Your task to perform on an android device: Open calendar and show me the second week of next month Image 0: 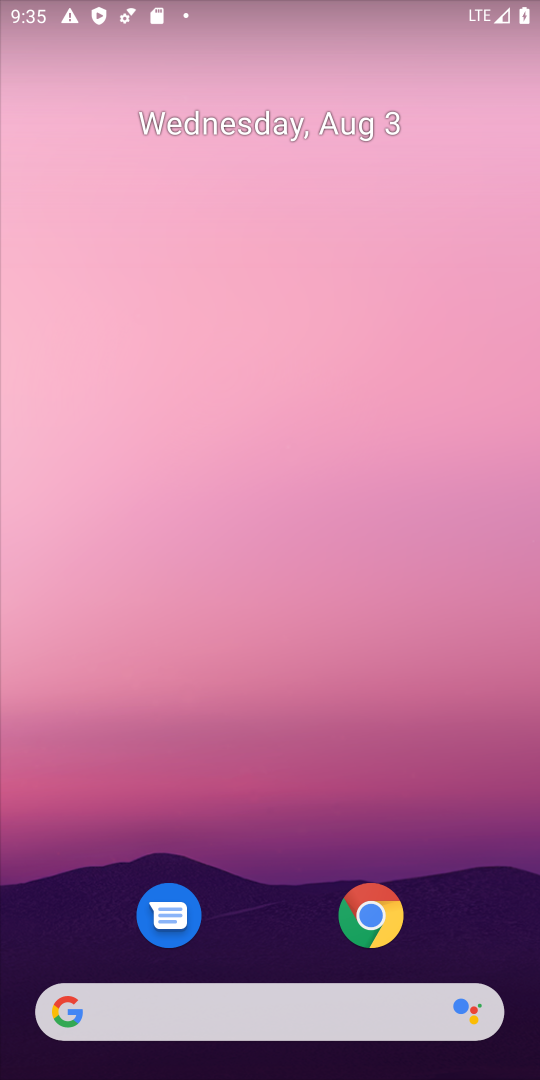
Step 0: drag from (304, 893) to (394, 346)
Your task to perform on an android device: Open calendar and show me the second week of next month Image 1: 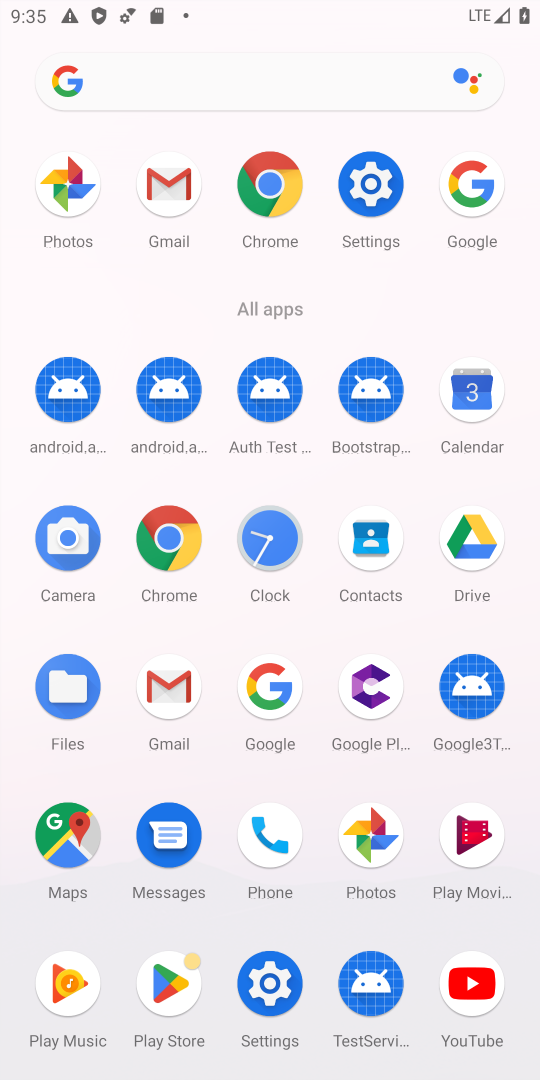
Step 1: click (482, 389)
Your task to perform on an android device: Open calendar and show me the second week of next month Image 2: 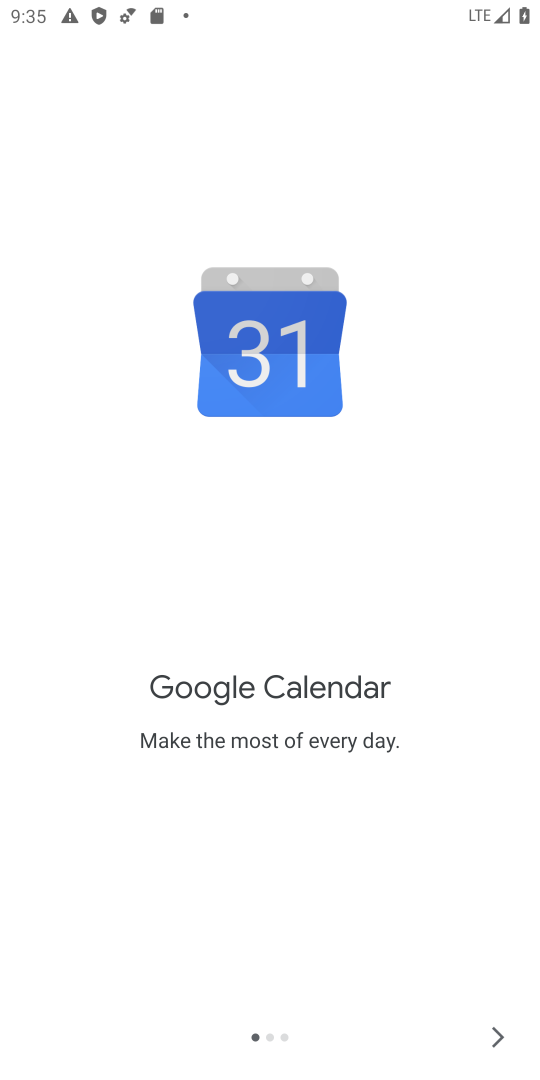
Step 2: click (481, 1034)
Your task to perform on an android device: Open calendar and show me the second week of next month Image 3: 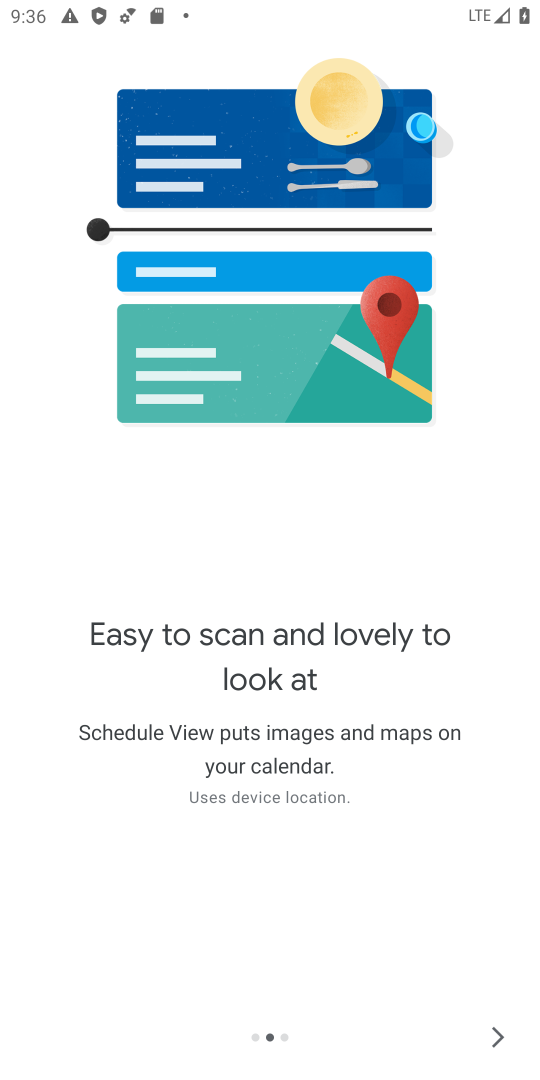
Step 3: click (489, 1038)
Your task to perform on an android device: Open calendar and show me the second week of next month Image 4: 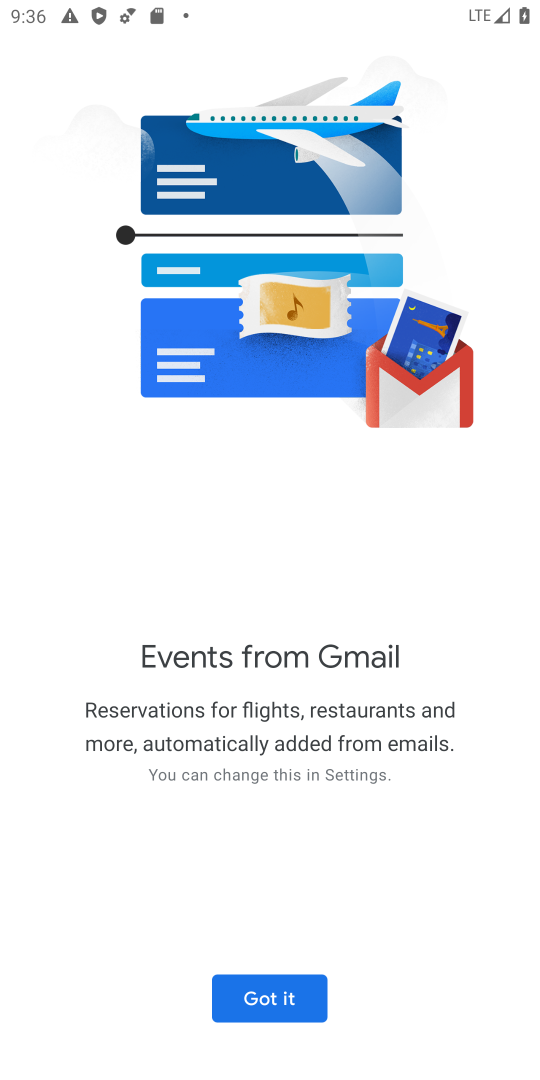
Step 4: click (490, 1038)
Your task to perform on an android device: Open calendar and show me the second week of next month Image 5: 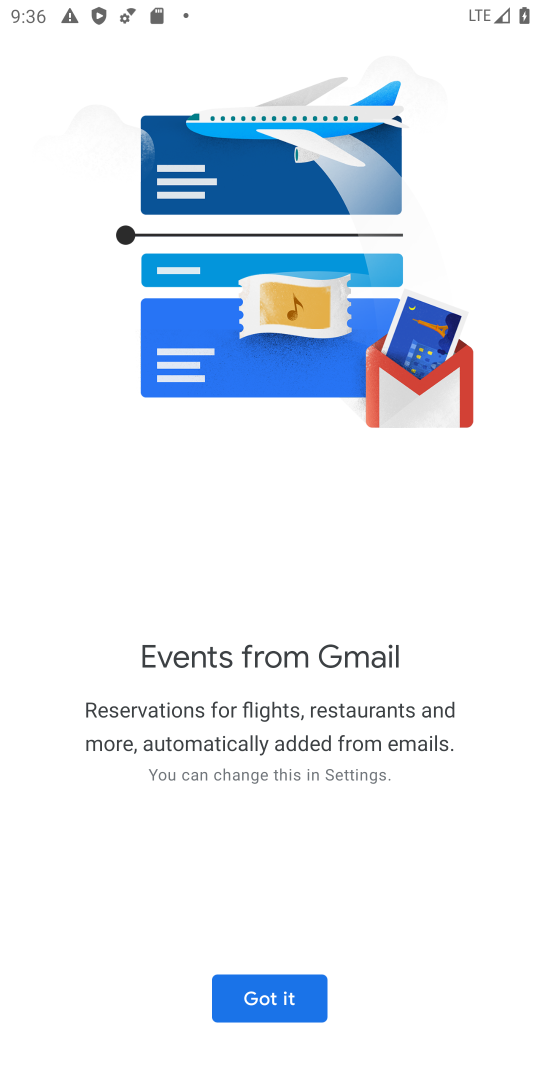
Step 5: click (268, 978)
Your task to perform on an android device: Open calendar and show me the second week of next month Image 6: 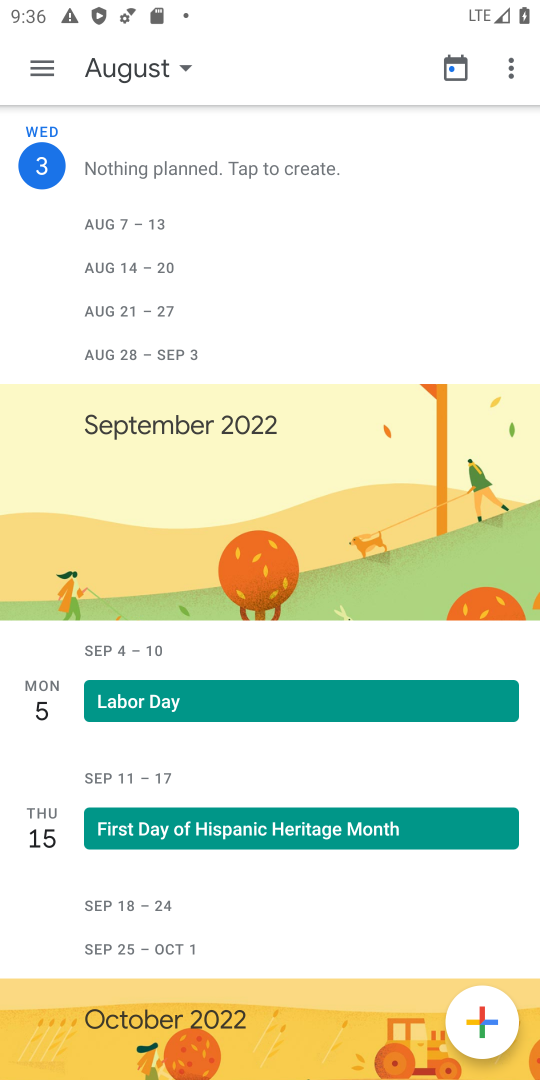
Step 6: click (135, 67)
Your task to perform on an android device: Open calendar and show me the second week of next month Image 7: 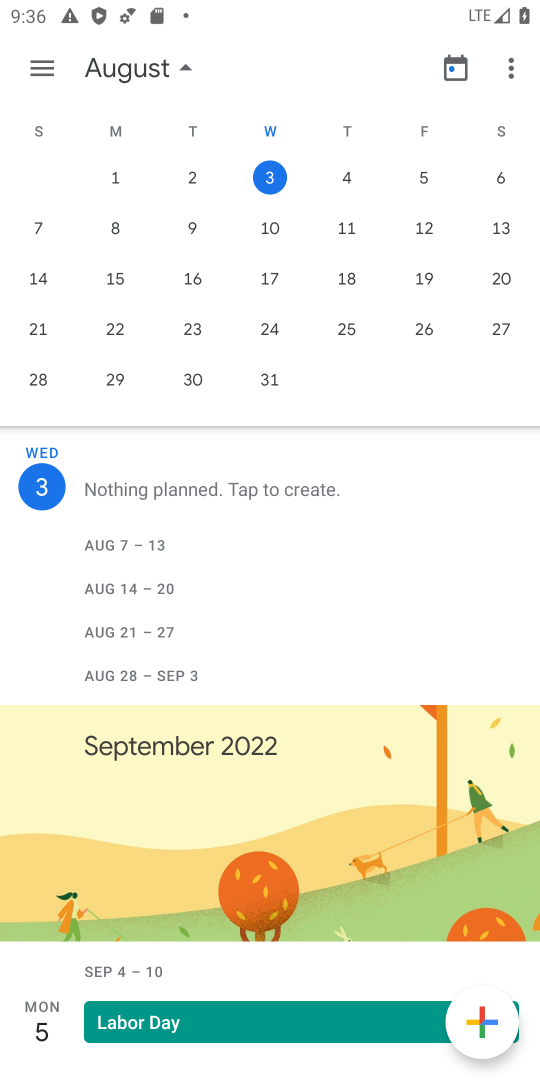
Step 7: drag from (450, 240) to (1, 326)
Your task to perform on an android device: Open calendar and show me the second week of next month Image 8: 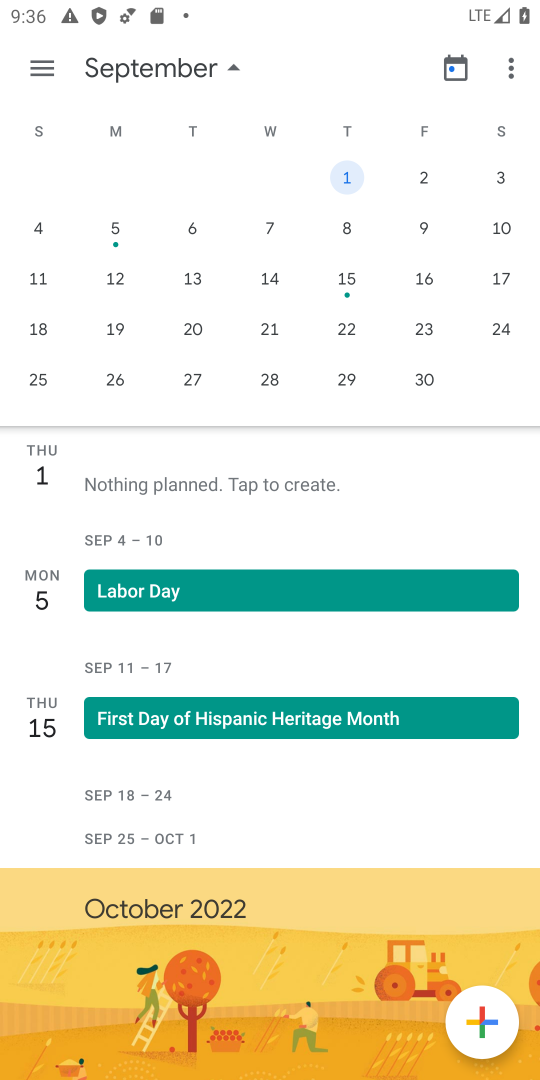
Step 8: click (39, 67)
Your task to perform on an android device: Open calendar and show me the second week of next month Image 9: 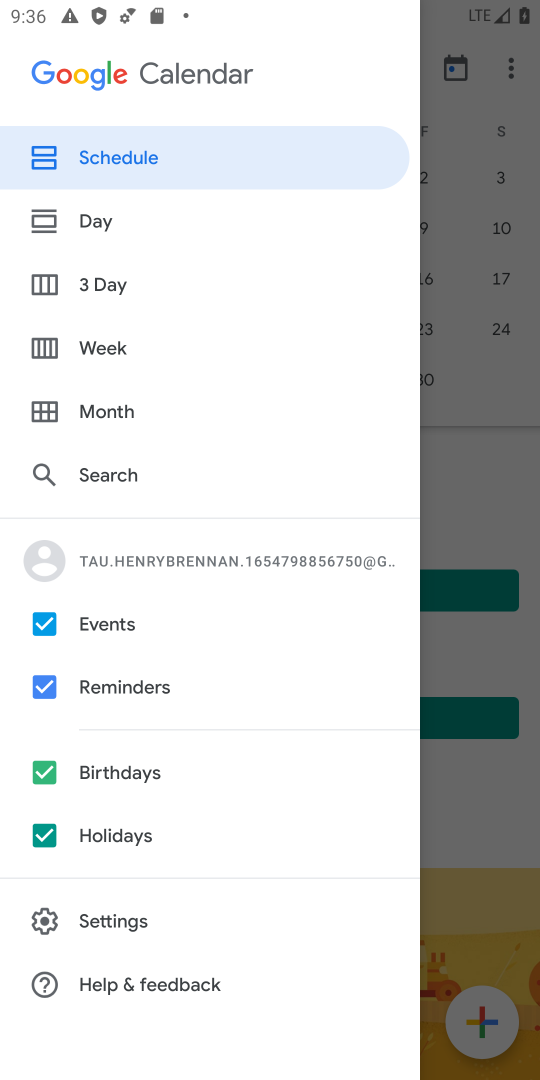
Step 9: click (124, 344)
Your task to perform on an android device: Open calendar and show me the second week of next month Image 10: 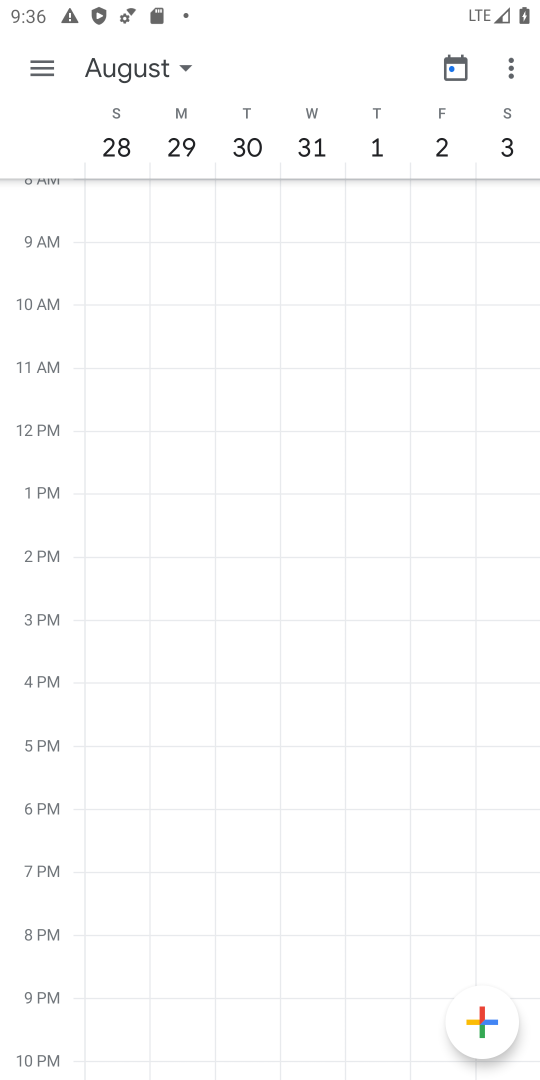
Step 10: task complete